Your task to perform on an android device: Open eBay Image 0: 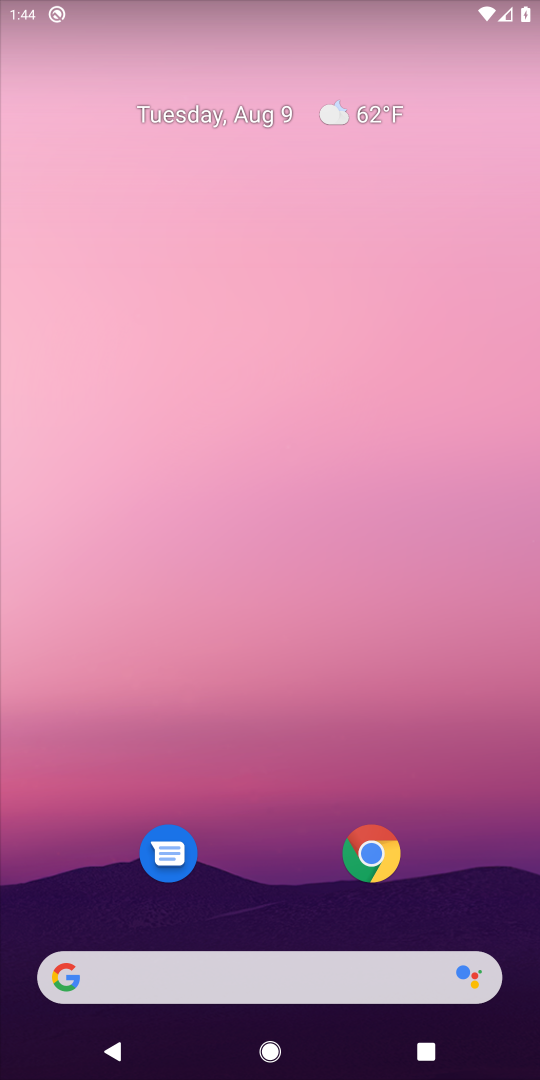
Step 0: press home button
Your task to perform on an android device: Open eBay Image 1: 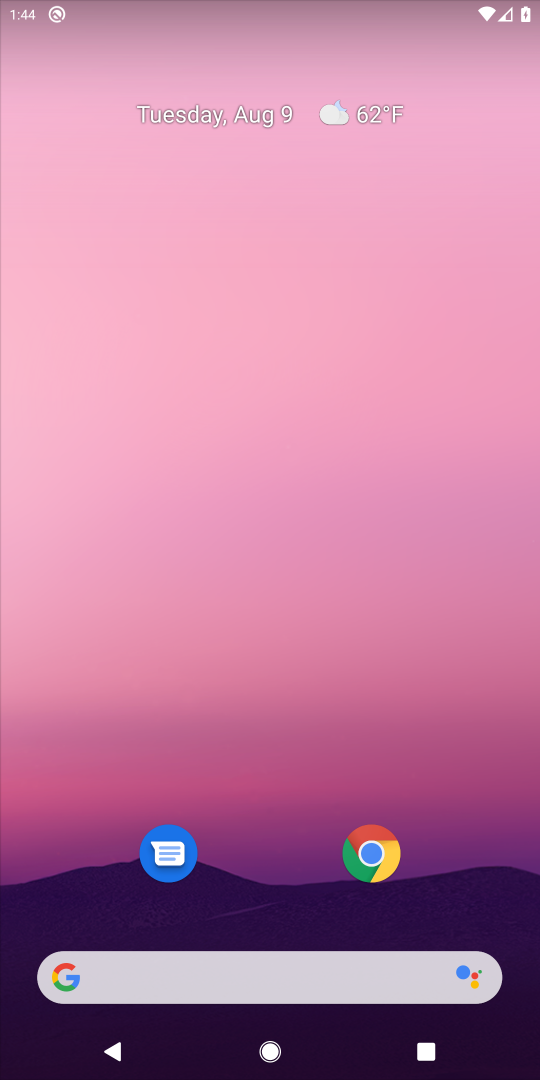
Step 1: click (72, 977)
Your task to perform on an android device: Open eBay Image 2: 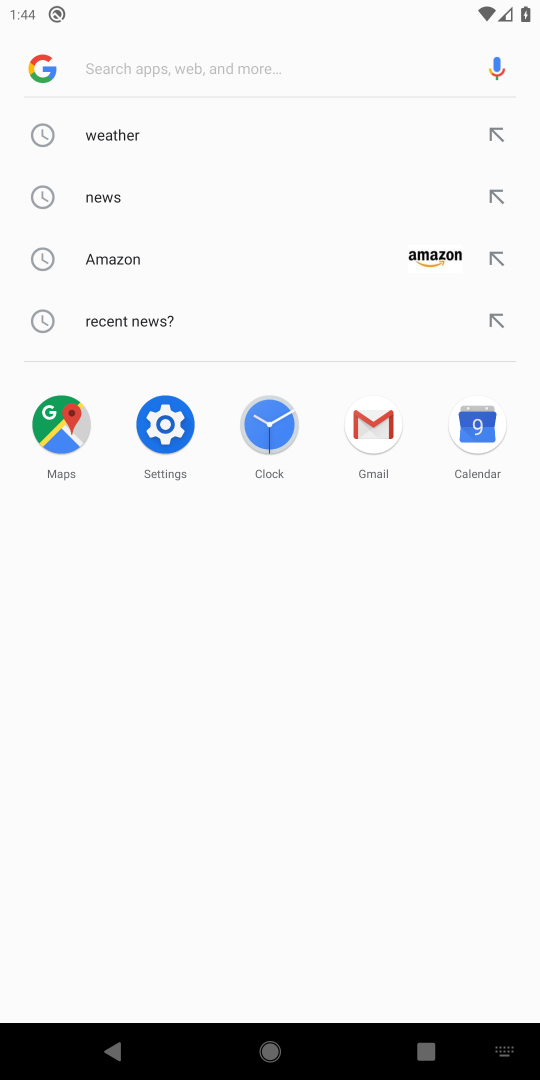
Step 2: type "eBay"
Your task to perform on an android device: Open eBay Image 3: 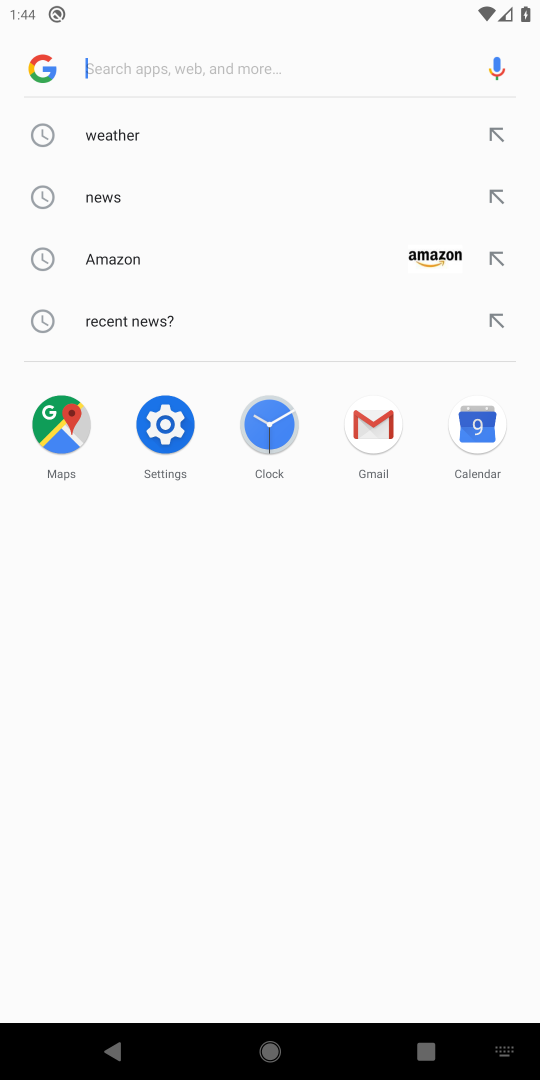
Step 3: click (124, 66)
Your task to perform on an android device: Open eBay Image 4: 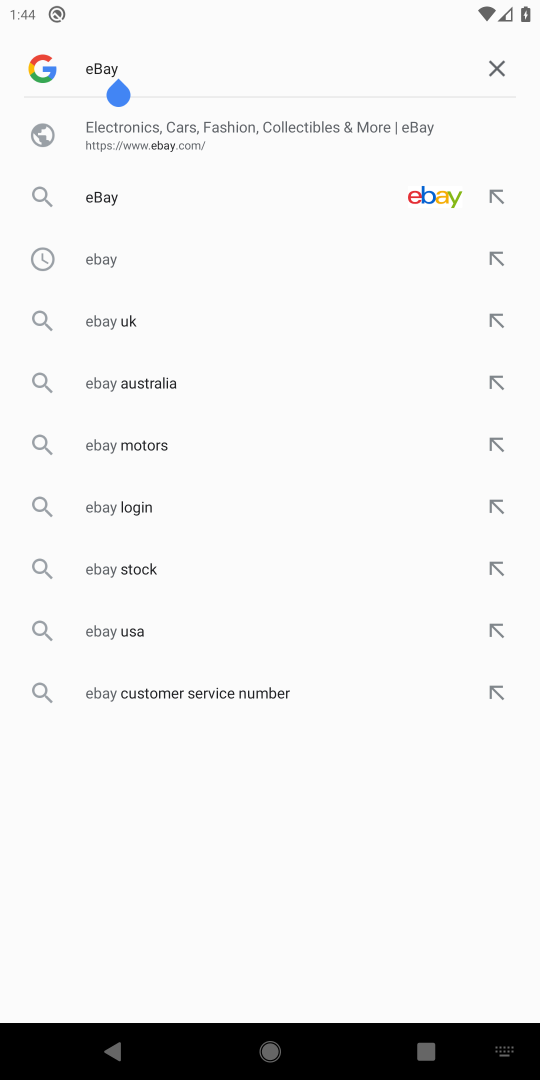
Step 4: click (106, 190)
Your task to perform on an android device: Open eBay Image 5: 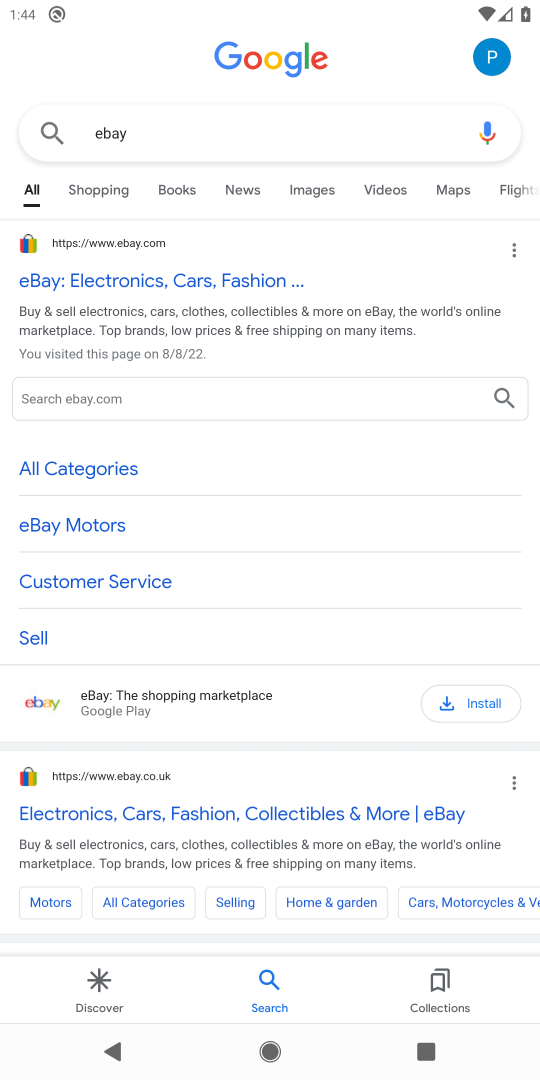
Step 5: click (46, 807)
Your task to perform on an android device: Open eBay Image 6: 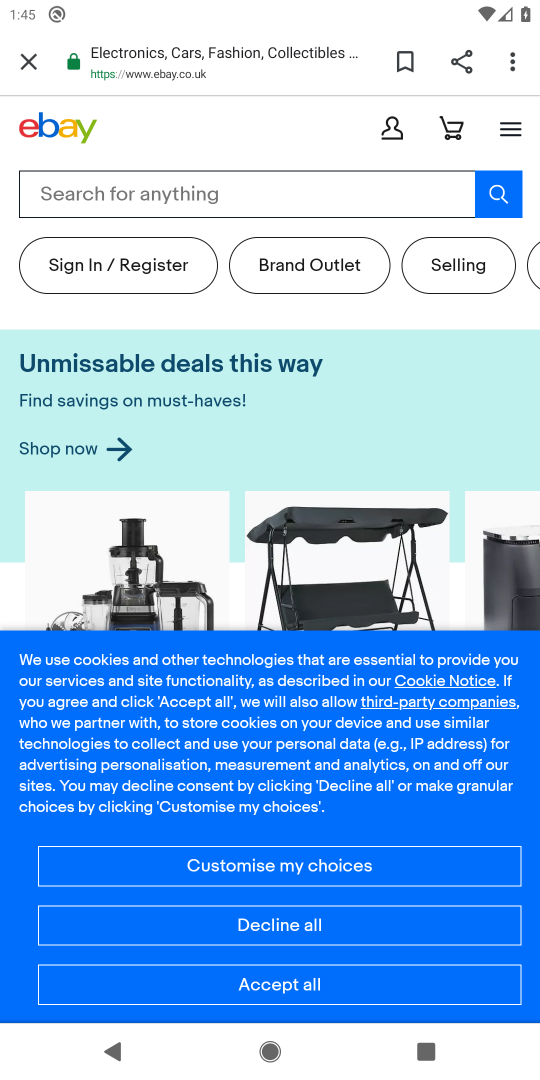
Step 6: task complete